Your task to perform on an android device: Go to network settings Image 0: 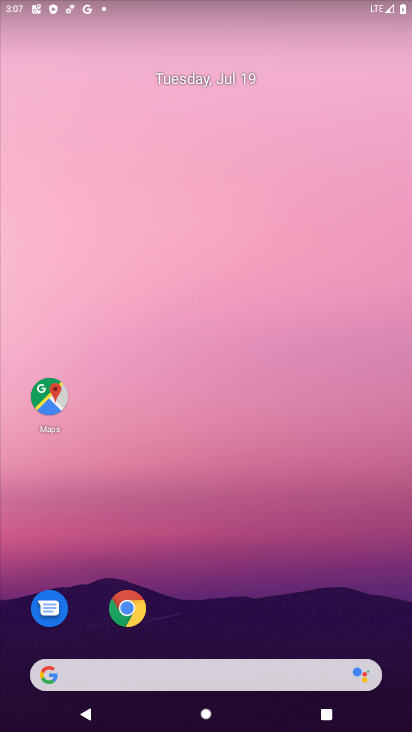
Step 0: drag from (282, 568) to (246, 63)
Your task to perform on an android device: Go to network settings Image 1: 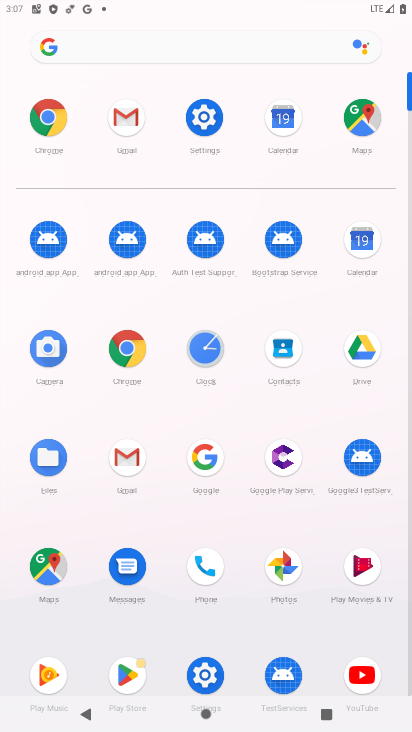
Step 1: click (196, 117)
Your task to perform on an android device: Go to network settings Image 2: 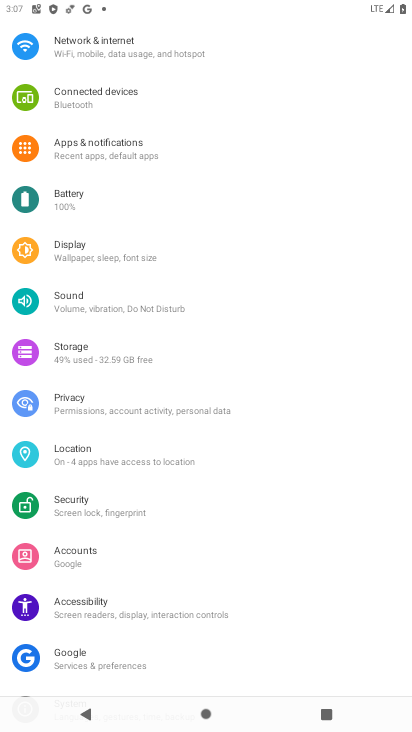
Step 2: click (140, 59)
Your task to perform on an android device: Go to network settings Image 3: 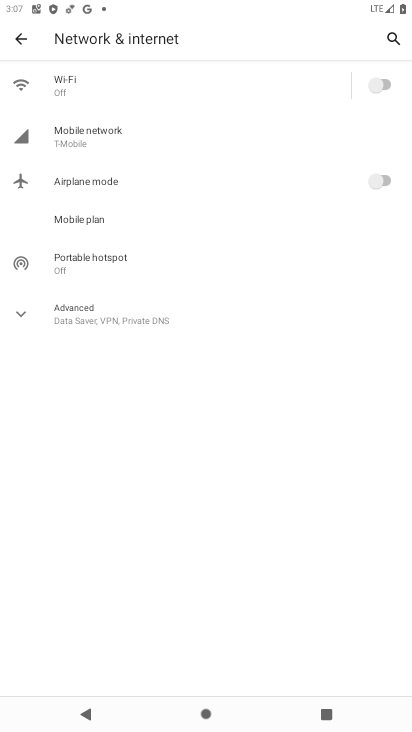
Step 3: task complete